Your task to perform on an android device: open device folders in google photos Image 0: 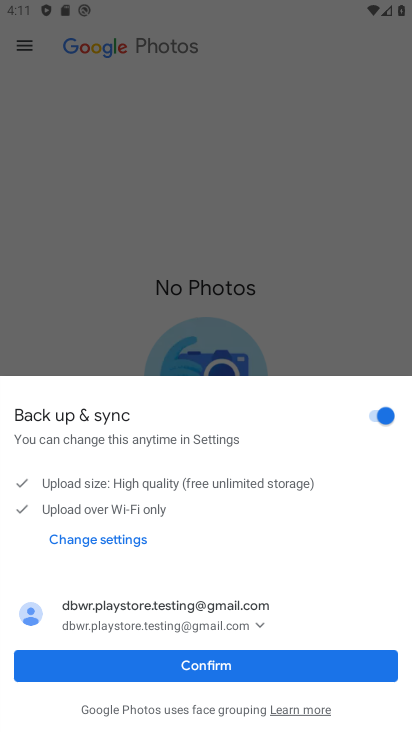
Step 0: press home button
Your task to perform on an android device: open device folders in google photos Image 1: 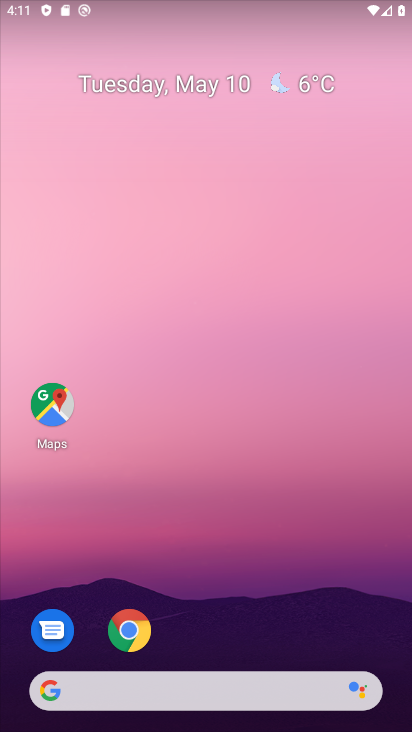
Step 1: drag from (306, 591) to (225, 85)
Your task to perform on an android device: open device folders in google photos Image 2: 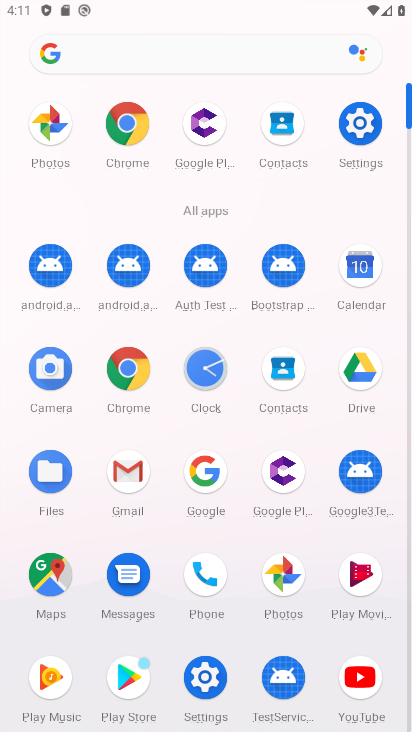
Step 2: click (53, 126)
Your task to perform on an android device: open device folders in google photos Image 3: 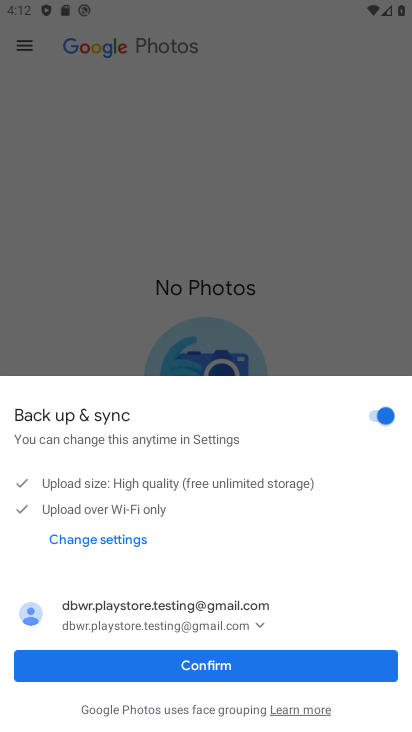
Step 3: click (232, 671)
Your task to perform on an android device: open device folders in google photos Image 4: 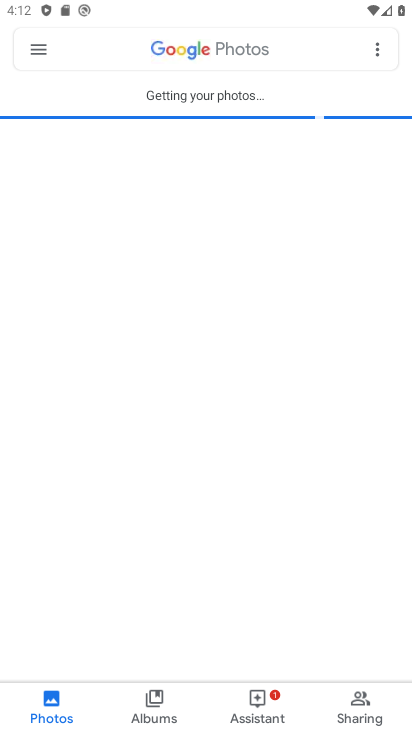
Step 4: click (32, 42)
Your task to perform on an android device: open device folders in google photos Image 5: 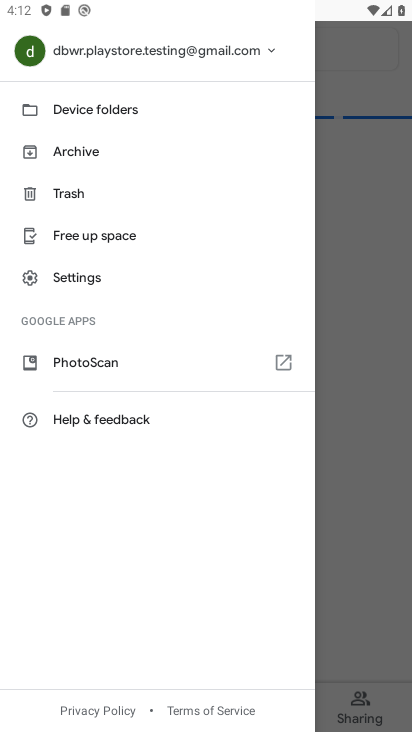
Step 5: click (78, 109)
Your task to perform on an android device: open device folders in google photos Image 6: 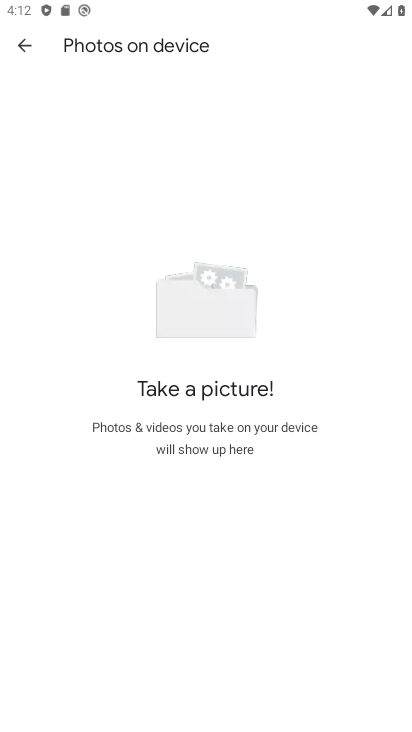
Step 6: task complete